Your task to perform on an android device: check google app version Image 0: 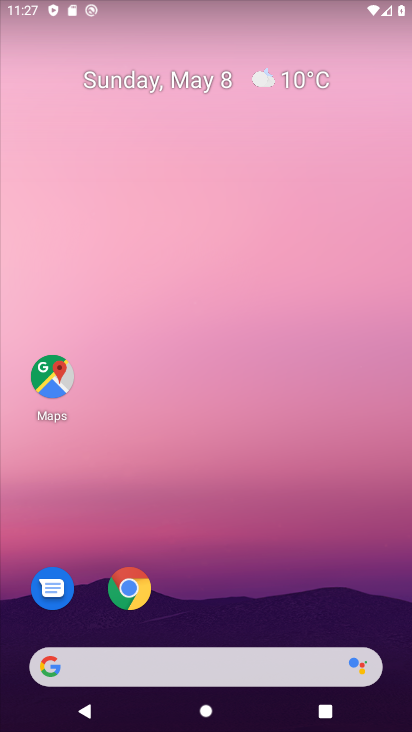
Step 0: drag from (272, 460) to (342, 145)
Your task to perform on an android device: check google app version Image 1: 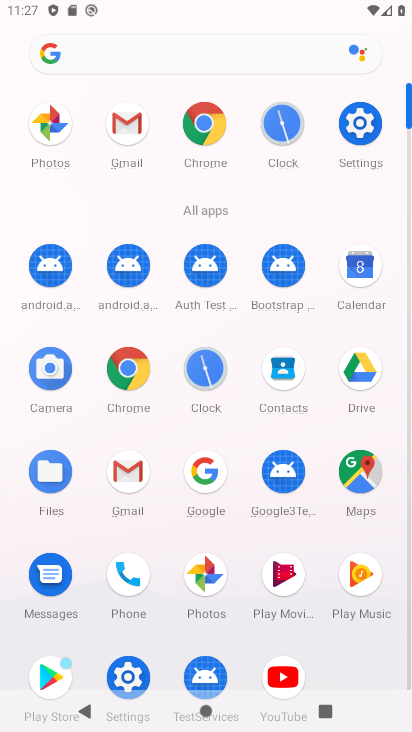
Step 1: click (215, 473)
Your task to perform on an android device: check google app version Image 2: 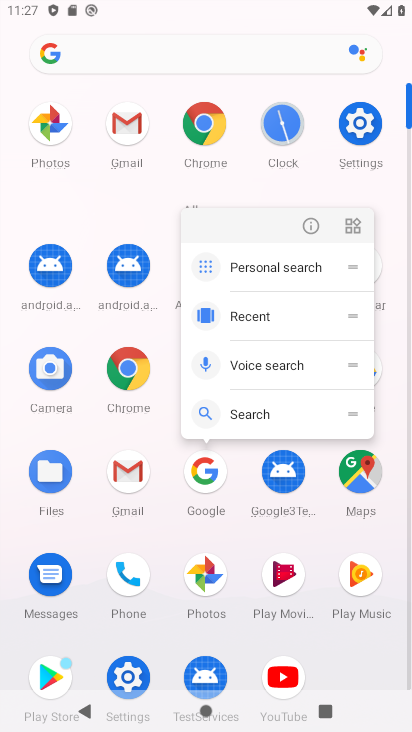
Step 2: click (316, 224)
Your task to perform on an android device: check google app version Image 3: 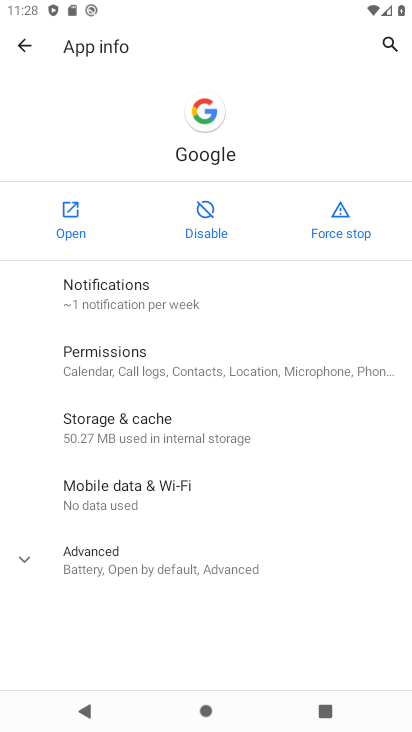
Step 3: click (160, 564)
Your task to perform on an android device: check google app version Image 4: 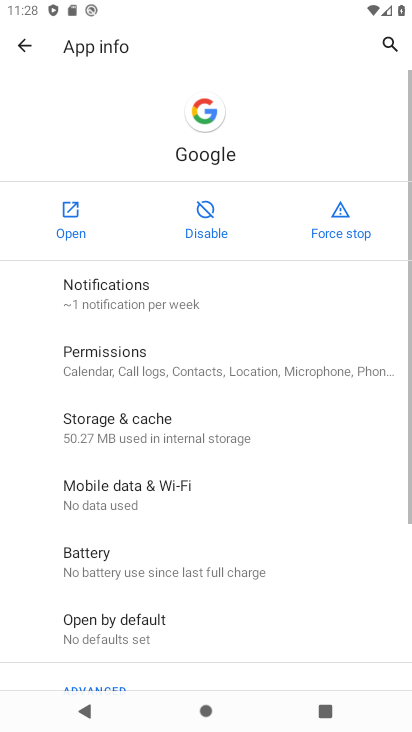
Step 4: drag from (168, 603) to (292, 40)
Your task to perform on an android device: check google app version Image 5: 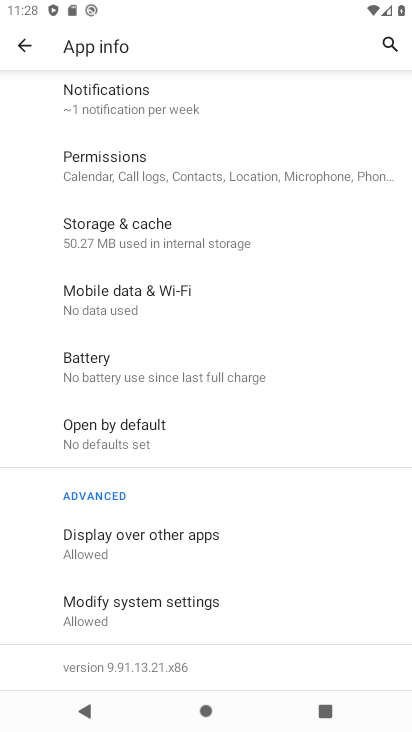
Step 5: click (88, 658)
Your task to perform on an android device: check google app version Image 6: 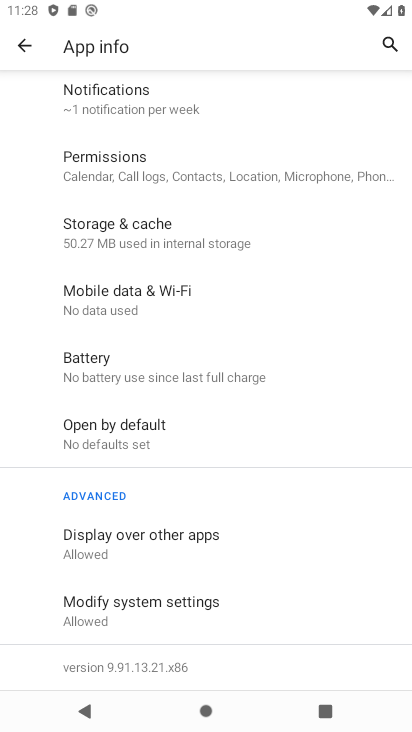
Step 6: task complete